Your task to perform on an android device: turn off priority inbox in the gmail app Image 0: 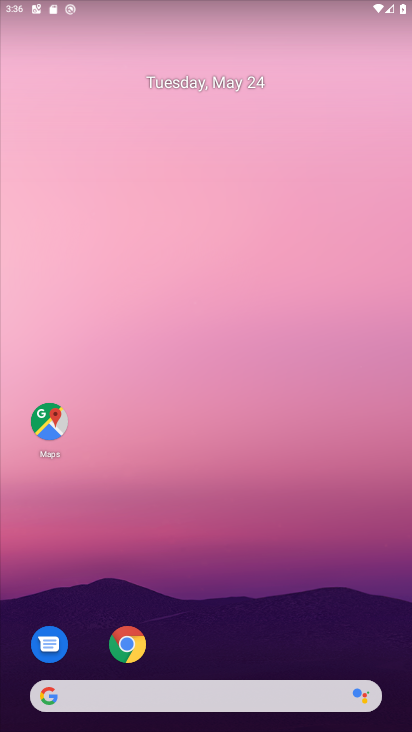
Step 0: drag from (337, 630) to (227, 95)
Your task to perform on an android device: turn off priority inbox in the gmail app Image 1: 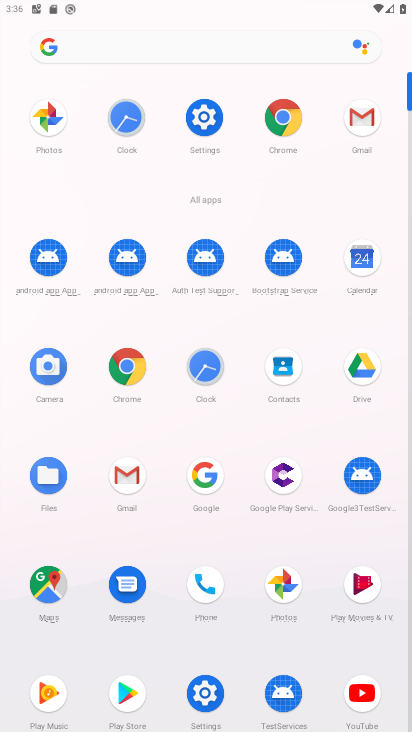
Step 1: click (370, 140)
Your task to perform on an android device: turn off priority inbox in the gmail app Image 2: 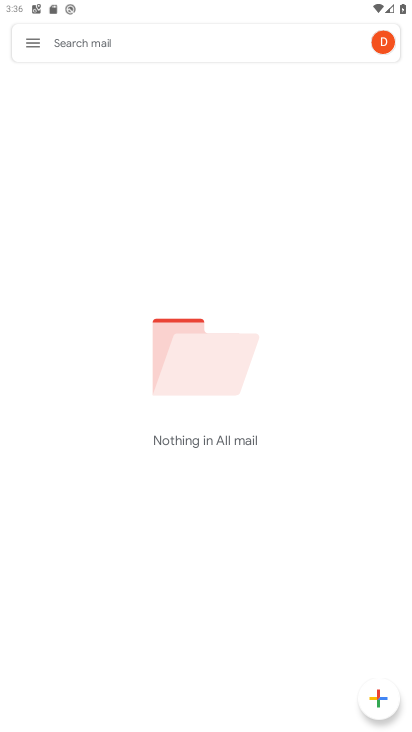
Step 2: click (24, 39)
Your task to perform on an android device: turn off priority inbox in the gmail app Image 3: 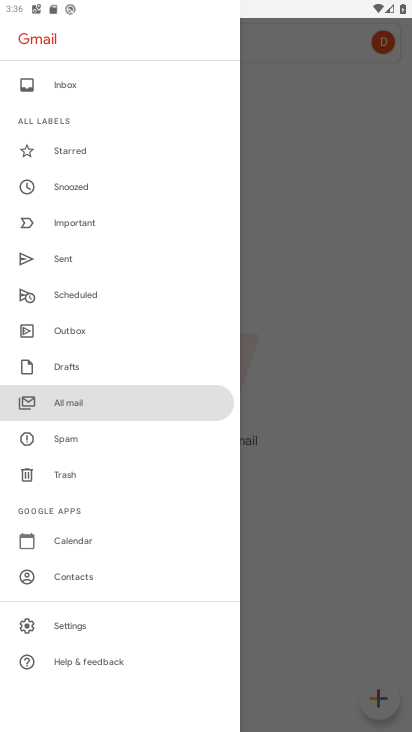
Step 3: click (121, 615)
Your task to perform on an android device: turn off priority inbox in the gmail app Image 4: 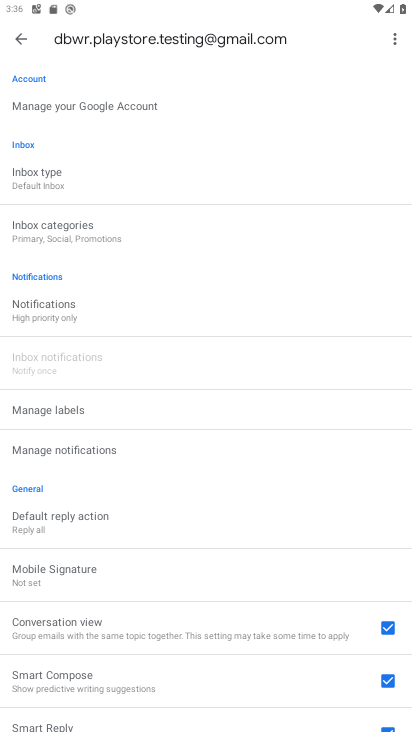
Step 4: click (22, 183)
Your task to perform on an android device: turn off priority inbox in the gmail app Image 5: 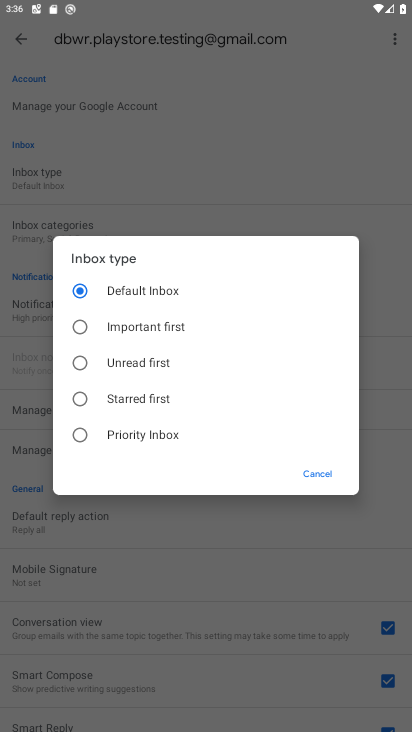
Step 5: click (133, 445)
Your task to perform on an android device: turn off priority inbox in the gmail app Image 6: 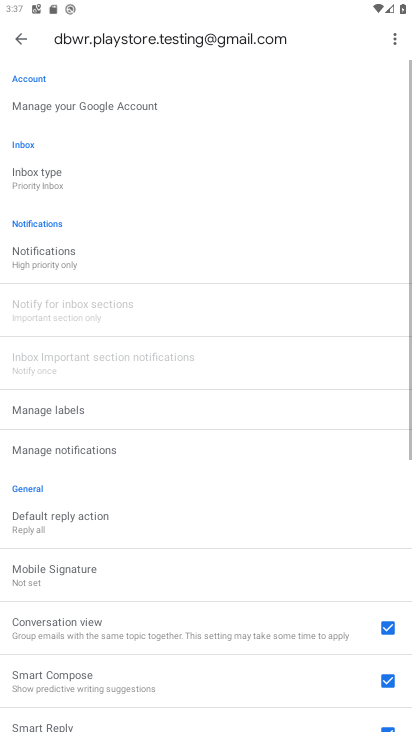
Step 6: task complete